Your task to perform on an android device: Toggle the flashlight Image 0: 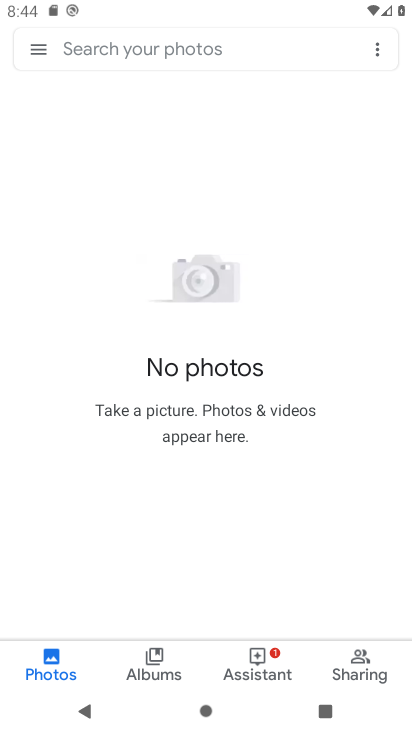
Step 0: press home button
Your task to perform on an android device: Toggle the flashlight Image 1: 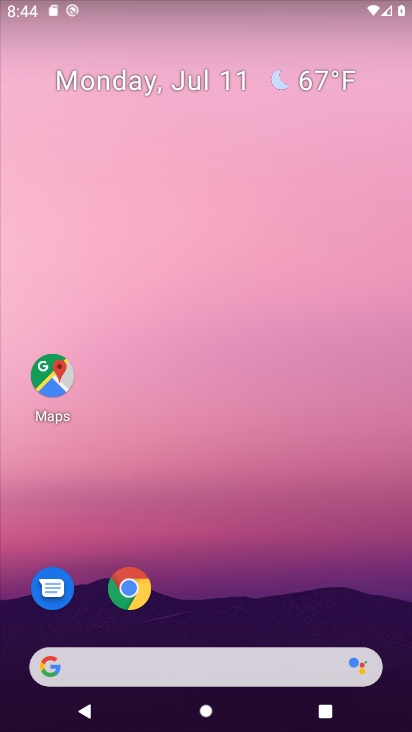
Step 1: drag from (314, 605) to (344, 112)
Your task to perform on an android device: Toggle the flashlight Image 2: 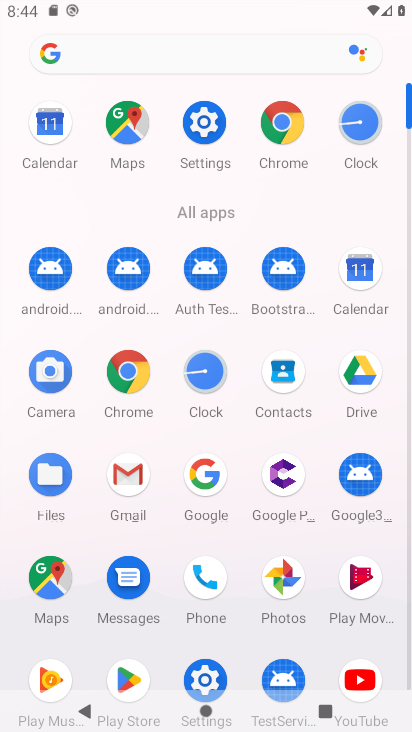
Step 2: click (207, 117)
Your task to perform on an android device: Toggle the flashlight Image 3: 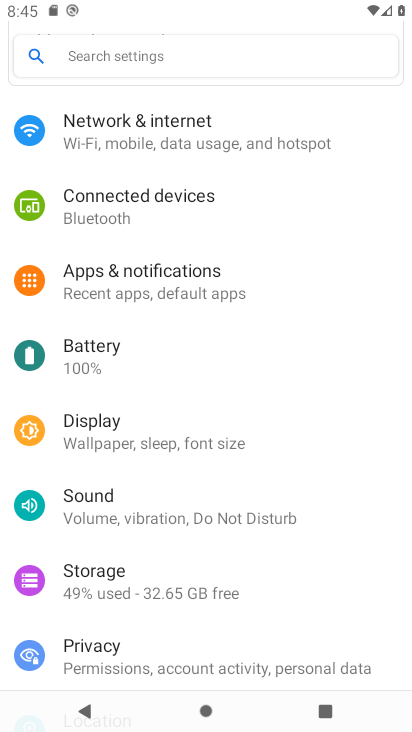
Step 3: task complete